Your task to perform on an android device: turn vacation reply on in the gmail app Image 0: 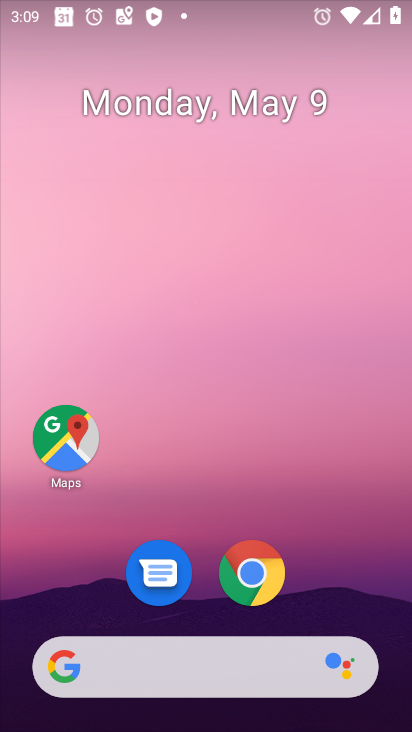
Step 0: drag from (162, 494) to (205, 323)
Your task to perform on an android device: turn vacation reply on in the gmail app Image 1: 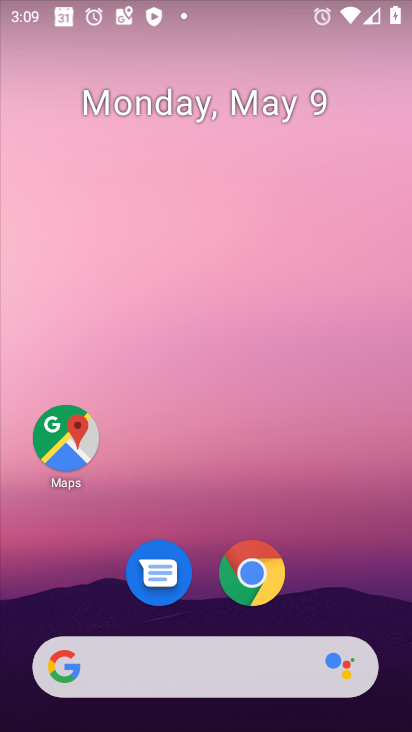
Step 1: drag from (240, 584) to (244, 231)
Your task to perform on an android device: turn vacation reply on in the gmail app Image 2: 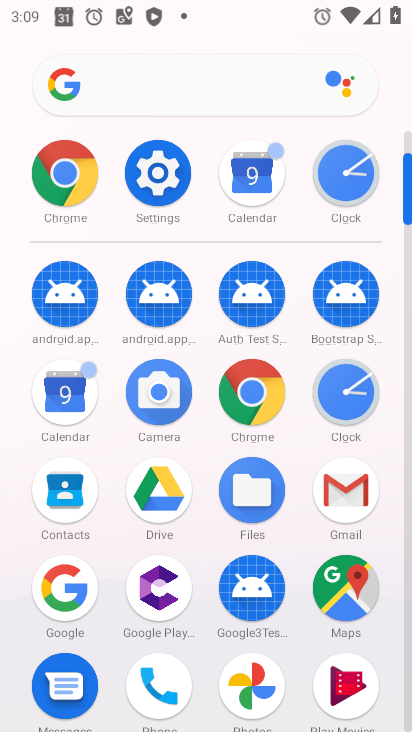
Step 2: click (322, 483)
Your task to perform on an android device: turn vacation reply on in the gmail app Image 3: 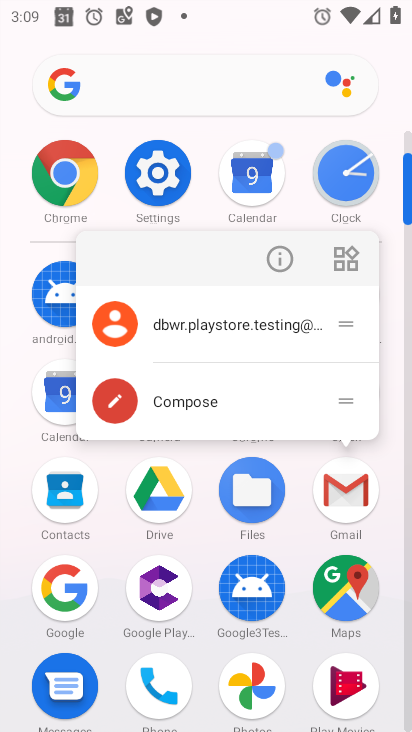
Step 3: drag from (227, 654) to (233, 391)
Your task to perform on an android device: turn vacation reply on in the gmail app Image 4: 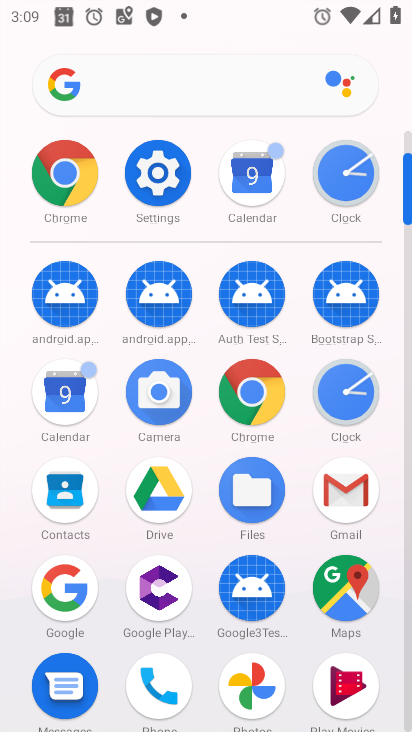
Step 4: drag from (219, 617) to (211, 283)
Your task to perform on an android device: turn vacation reply on in the gmail app Image 5: 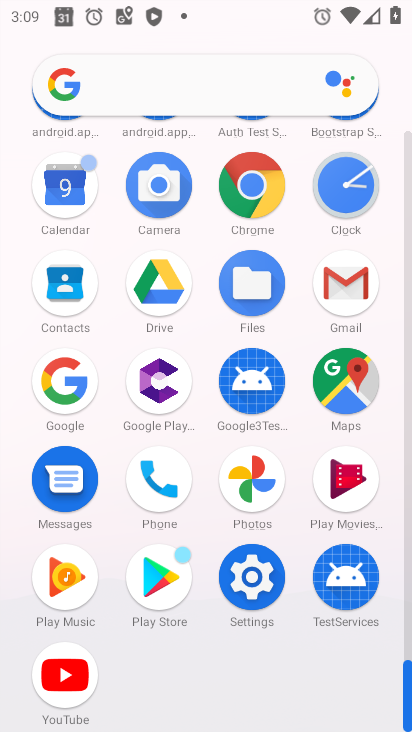
Step 5: click (357, 302)
Your task to perform on an android device: turn vacation reply on in the gmail app Image 6: 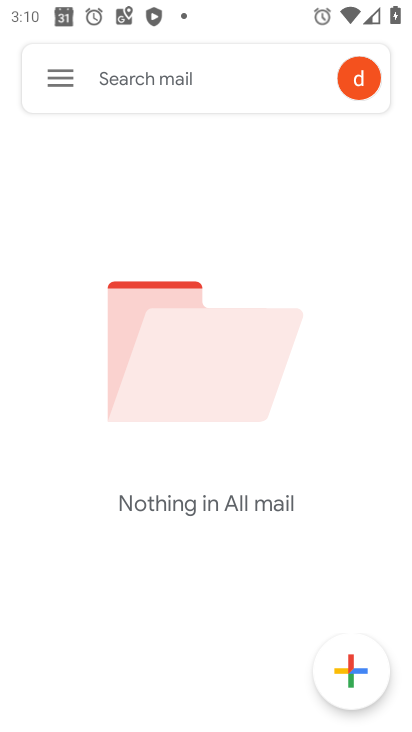
Step 6: click (61, 77)
Your task to perform on an android device: turn vacation reply on in the gmail app Image 7: 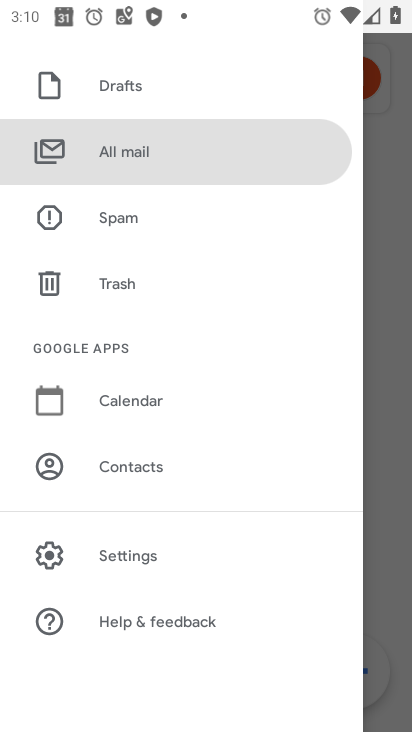
Step 7: click (167, 546)
Your task to perform on an android device: turn vacation reply on in the gmail app Image 8: 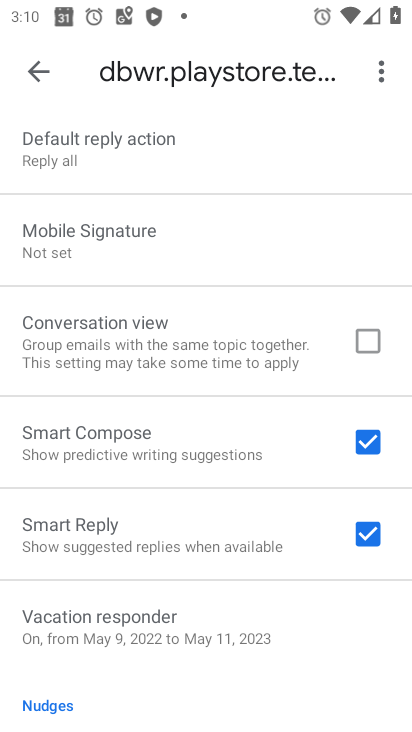
Step 8: click (114, 625)
Your task to perform on an android device: turn vacation reply on in the gmail app Image 9: 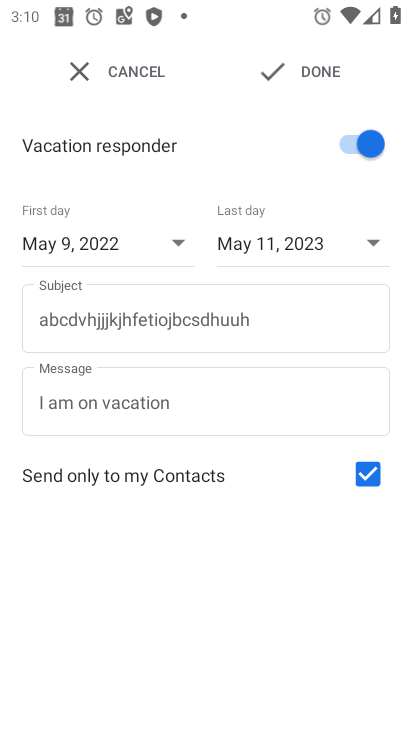
Step 9: click (325, 70)
Your task to perform on an android device: turn vacation reply on in the gmail app Image 10: 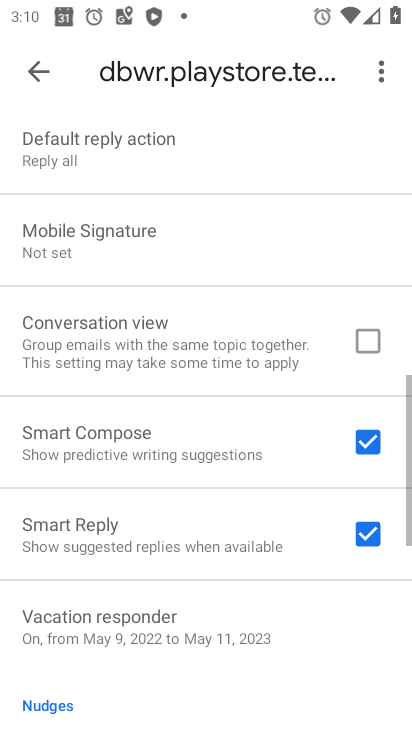
Step 10: task complete